Your task to perform on an android device: Is it going to rain tomorrow? Image 0: 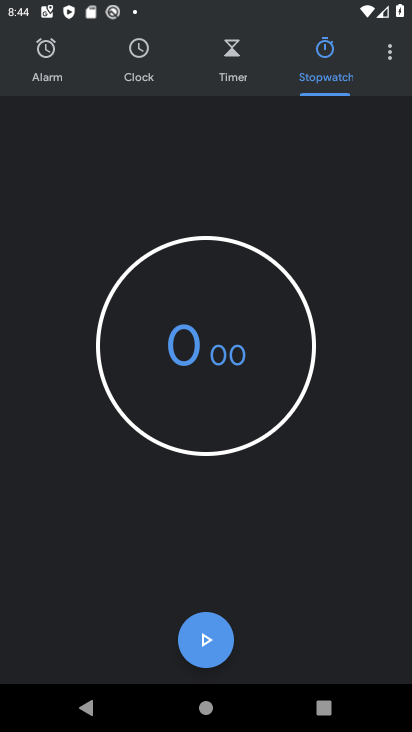
Step 0: press home button
Your task to perform on an android device: Is it going to rain tomorrow? Image 1: 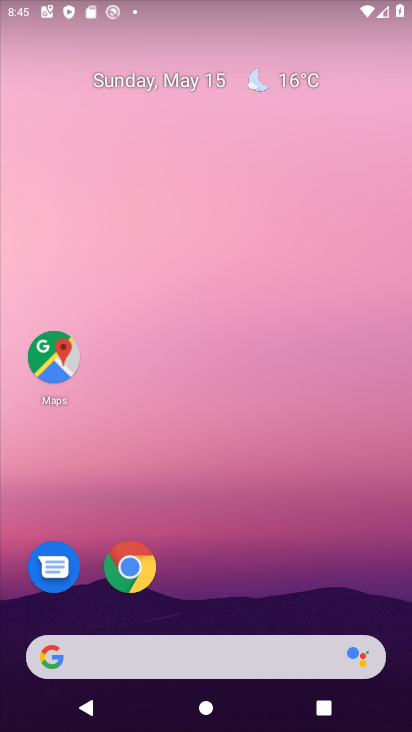
Step 1: click (291, 85)
Your task to perform on an android device: Is it going to rain tomorrow? Image 2: 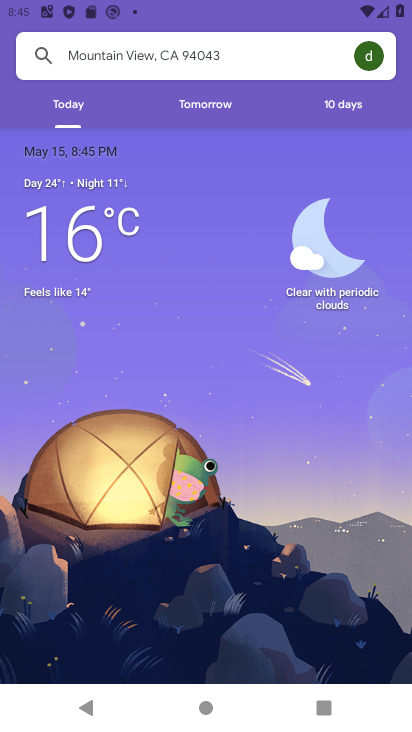
Step 2: click (189, 110)
Your task to perform on an android device: Is it going to rain tomorrow? Image 3: 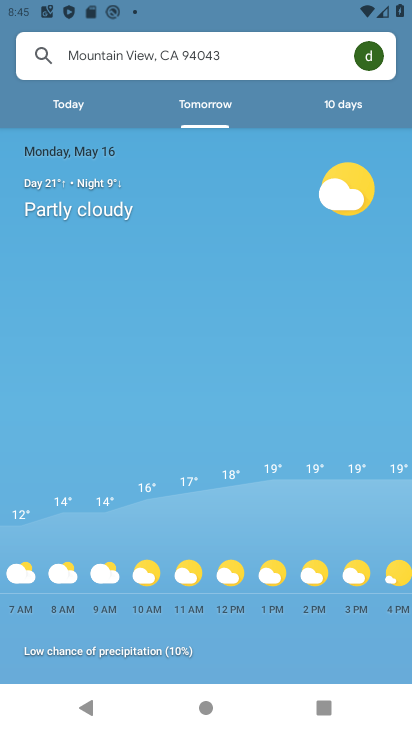
Step 3: task complete